Your task to perform on an android device: toggle priority inbox in the gmail app Image 0: 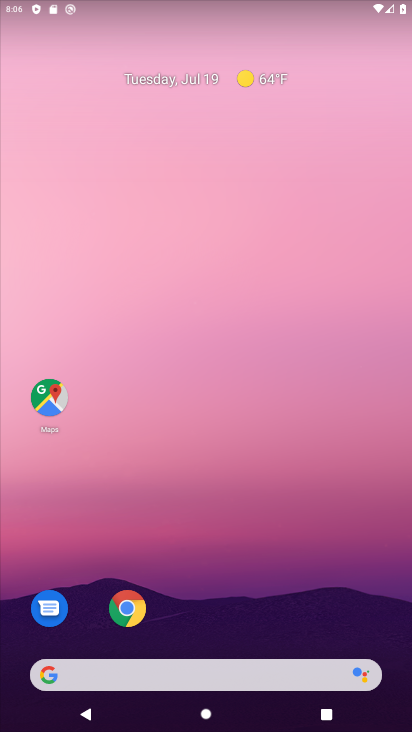
Step 0: drag from (195, 681) to (220, 119)
Your task to perform on an android device: toggle priority inbox in the gmail app Image 1: 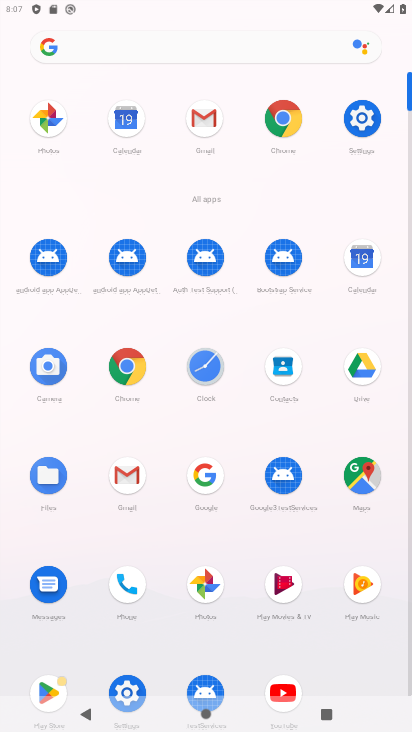
Step 1: click (137, 473)
Your task to perform on an android device: toggle priority inbox in the gmail app Image 2: 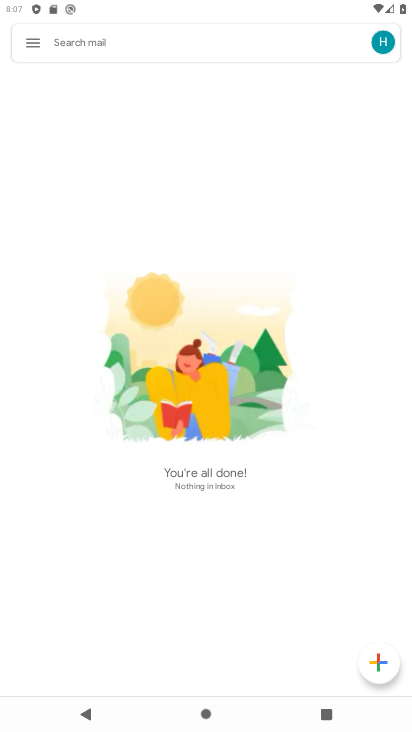
Step 2: click (31, 46)
Your task to perform on an android device: toggle priority inbox in the gmail app Image 3: 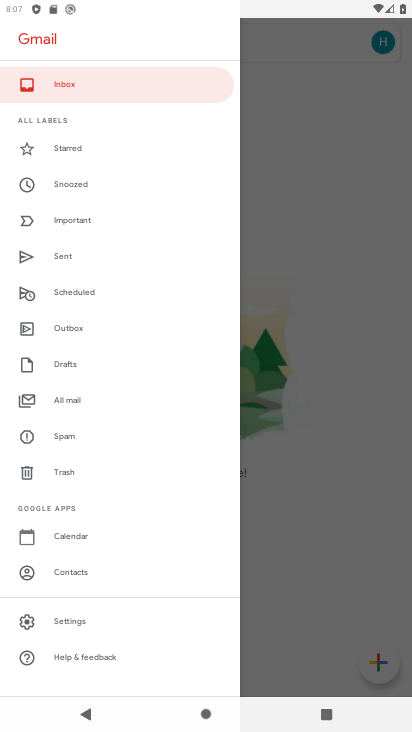
Step 3: click (70, 615)
Your task to perform on an android device: toggle priority inbox in the gmail app Image 4: 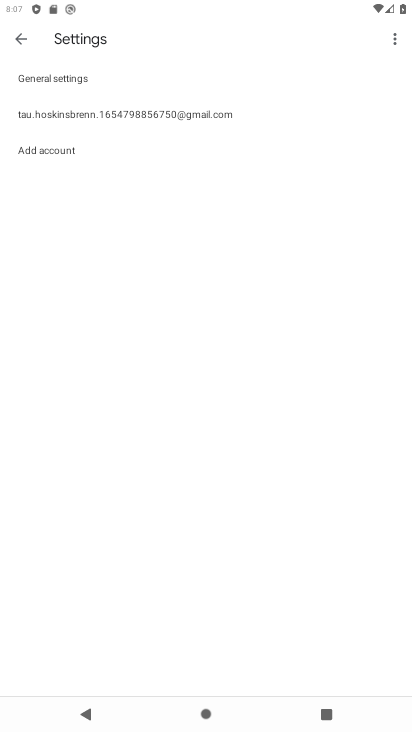
Step 4: click (71, 116)
Your task to perform on an android device: toggle priority inbox in the gmail app Image 5: 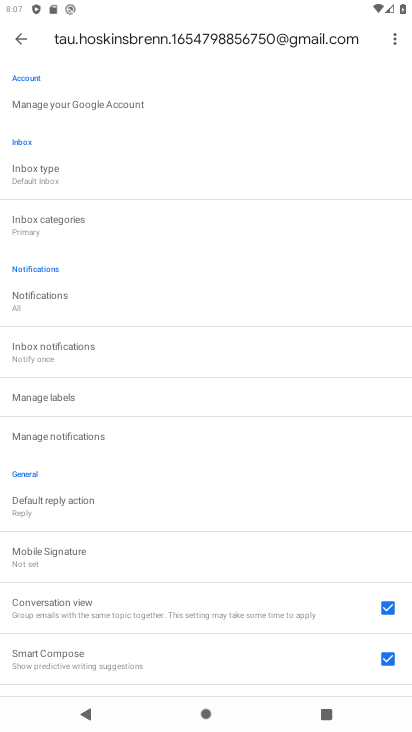
Step 5: click (63, 158)
Your task to perform on an android device: toggle priority inbox in the gmail app Image 6: 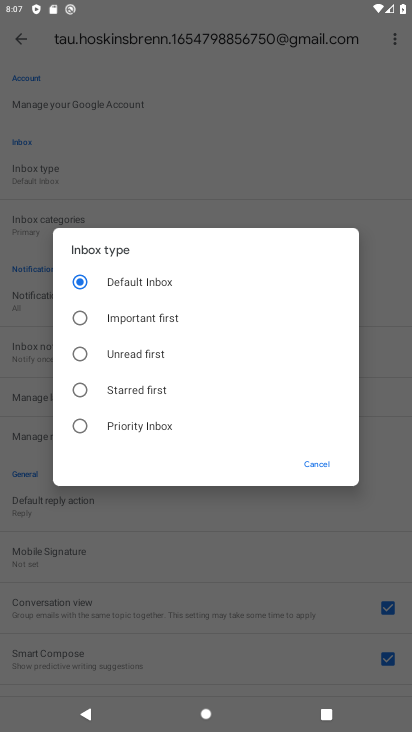
Step 6: click (150, 423)
Your task to perform on an android device: toggle priority inbox in the gmail app Image 7: 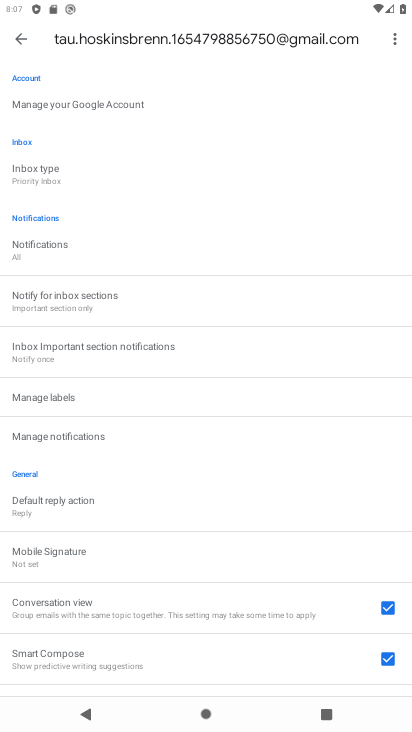
Step 7: task complete